Your task to perform on an android device: turn pop-ups off in chrome Image 0: 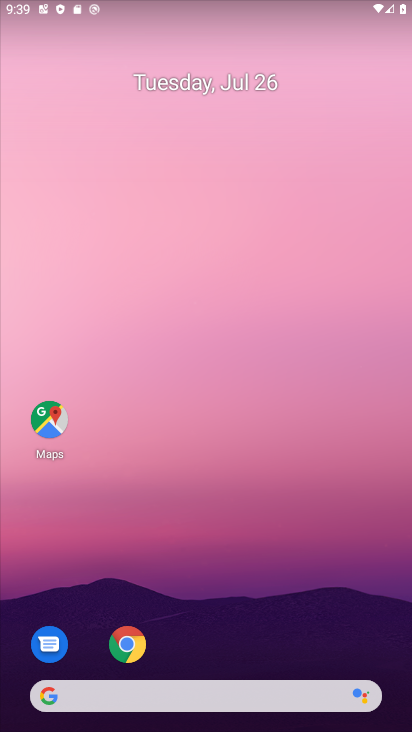
Step 0: click (128, 640)
Your task to perform on an android device: turn pop-ups off in chrome Image 1: 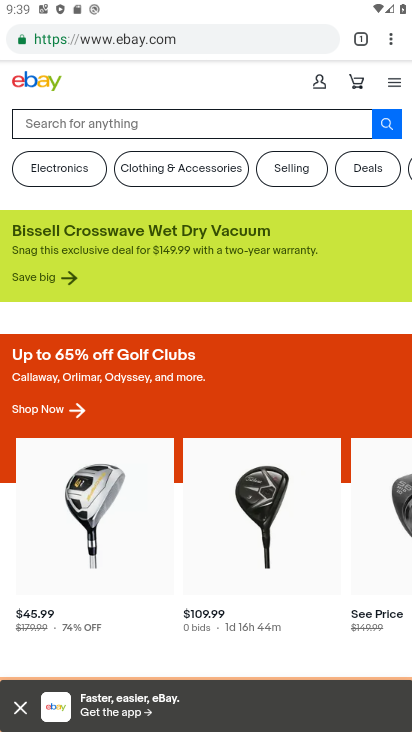
Step 1: click (391, 36)
Your task to perform on an android device: turn pop-ups off in chrome Image 2: 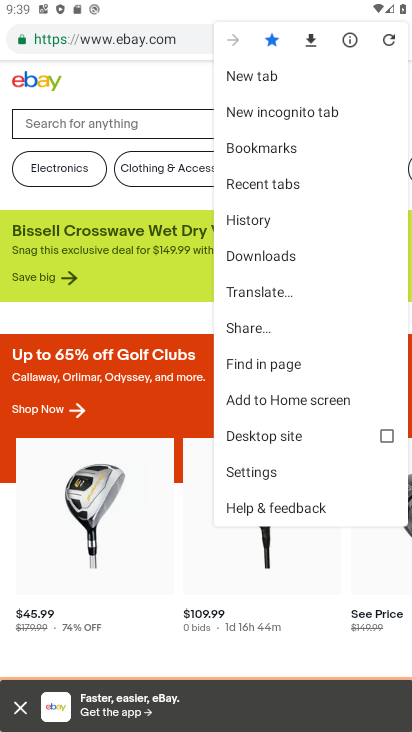
Step 2: click (257, 474)
Your task to perform on an android device: turn pop-ups off in chrome Image 3: 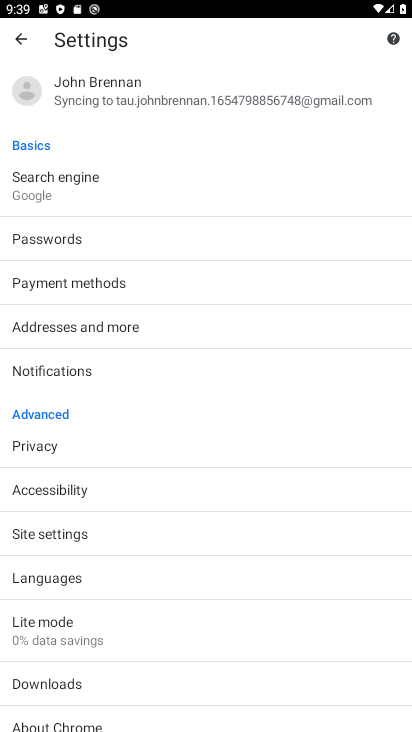
Step 3: click (65, 536)
Your task to perform on an android device: turn pop-ups off in chrome Image 4: 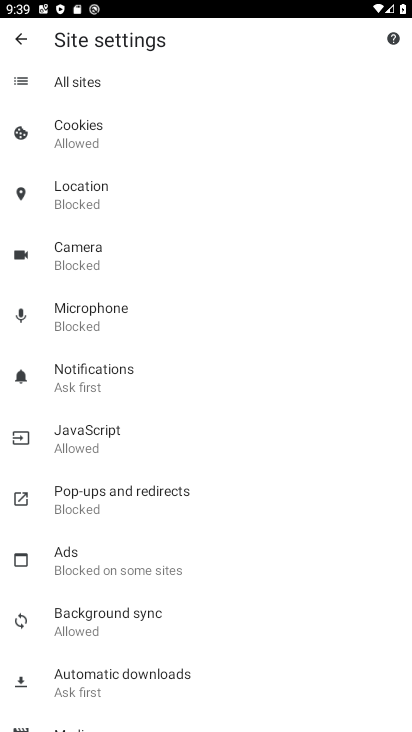
Step 4: click (107, 505)
Your task to perform on an android device: turn pop-ups off in chrome Image 5: 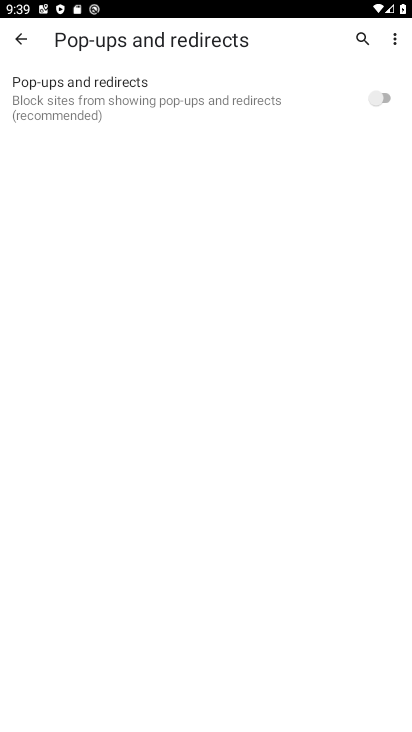
Step 5: task complete